Your task to perform on an android device: Check the weather Image 0: 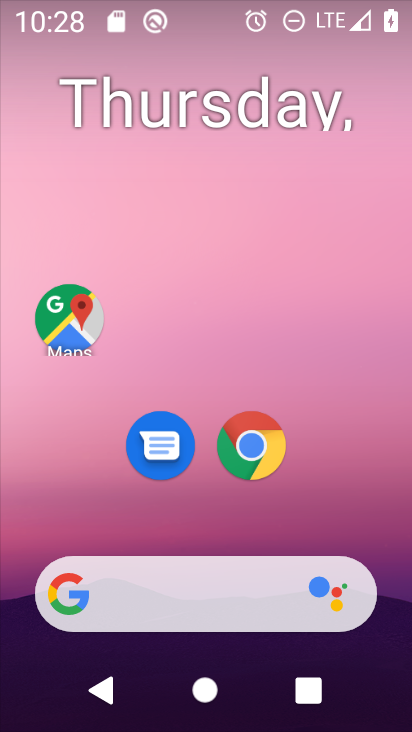
Step 0: drag from (400, 623) to (376, 122)
Your task to perform on an android device: Check the weather Image 1: 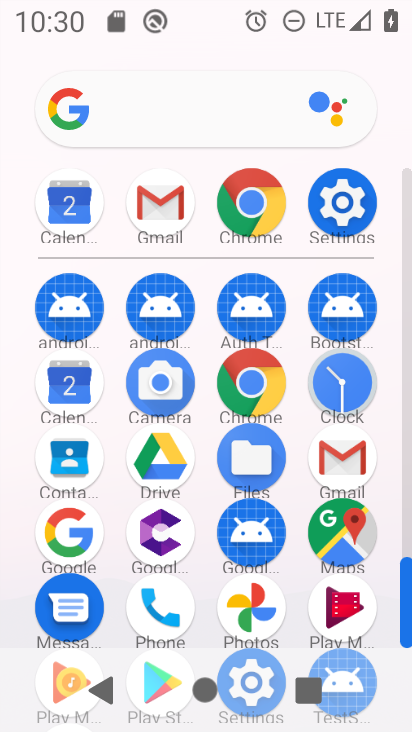
Step 1: click (73, 521)
Your task to perform on an android device: Check the weather Image 2: 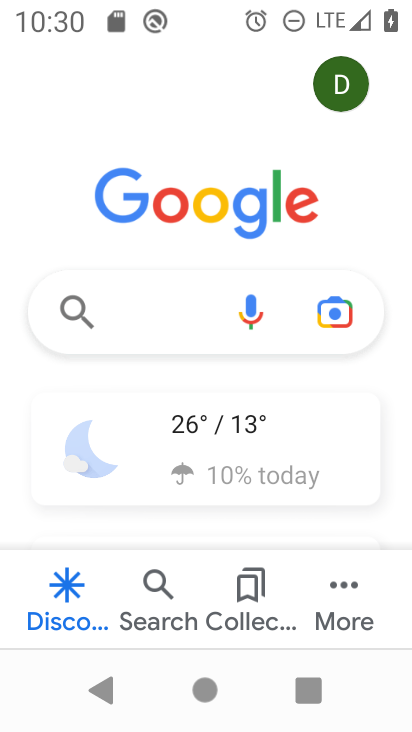
Step 2: click (138, 329)
Your task to perform on an android device: Check the weather Image 3: 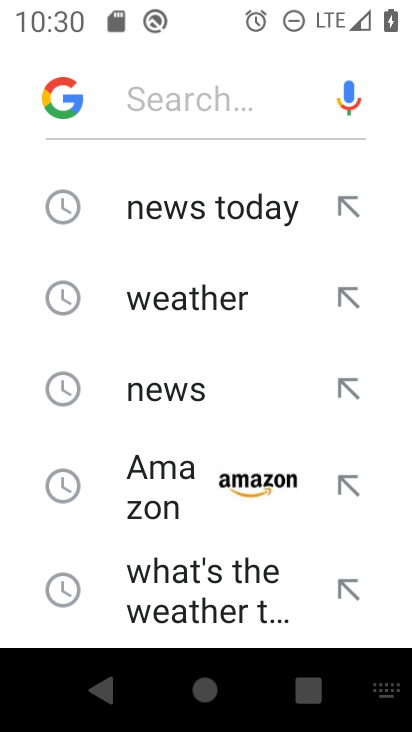
Step 3: click (219, 314)
Your task to perform on an android device: Check the weather Image 4: 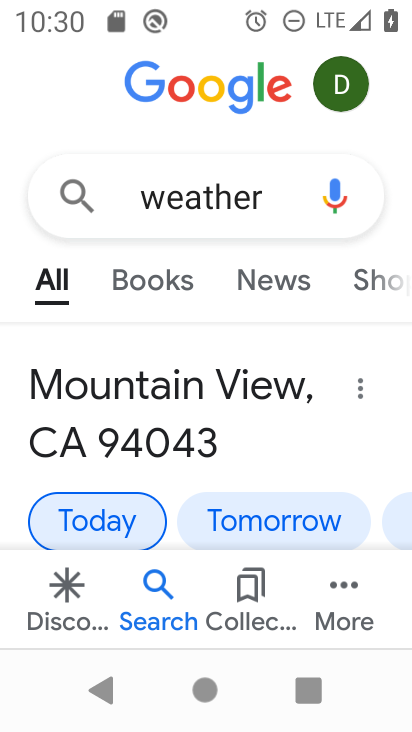
Step 4: task complete